Your task to perform on an android device: toggle translation in the chrome app Image 0: 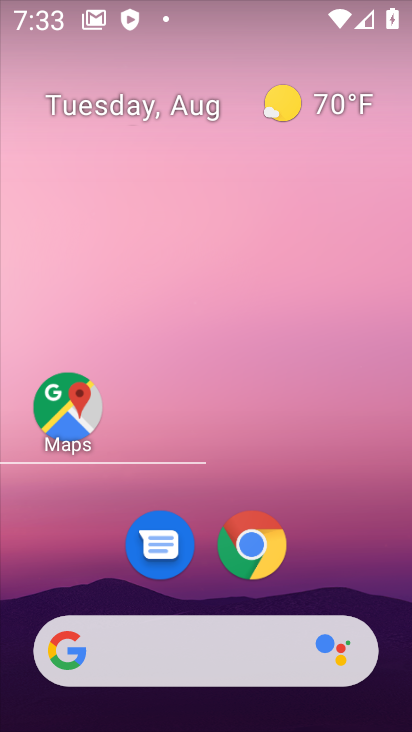
Step 0: drag from (254, 538) to (274, 142)
Your task to perform on an android device: toggle translation in the chrome app Image 1: 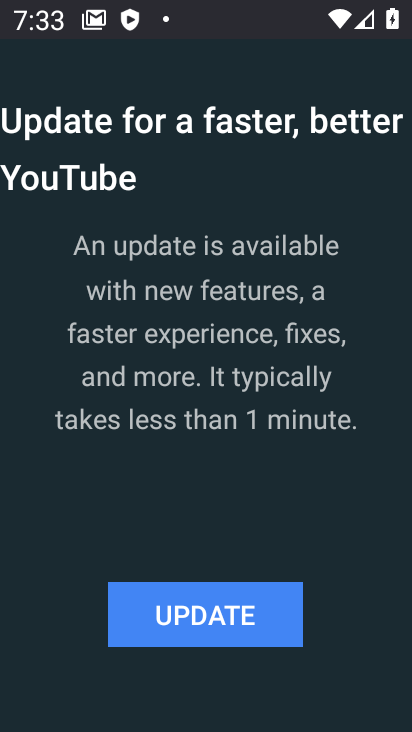
Step 1: press home button
Your task to perform on an android device: toggle translation in the chrome app Image 2: 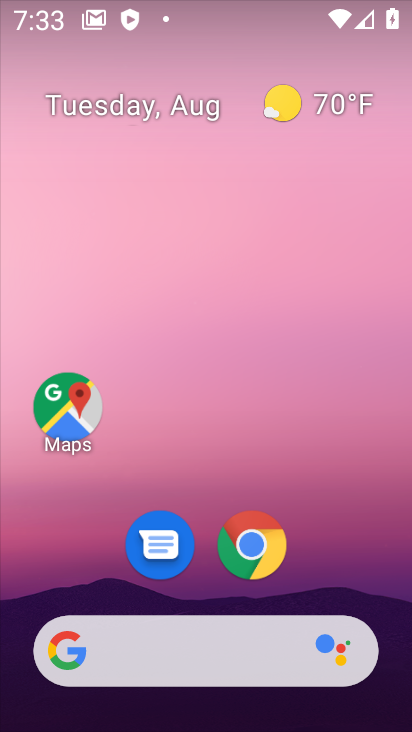
Step 2: drag from (208, 659) to (214, 146)
Your task to perform on an android device: toggle translation in the chrome app Image 3: 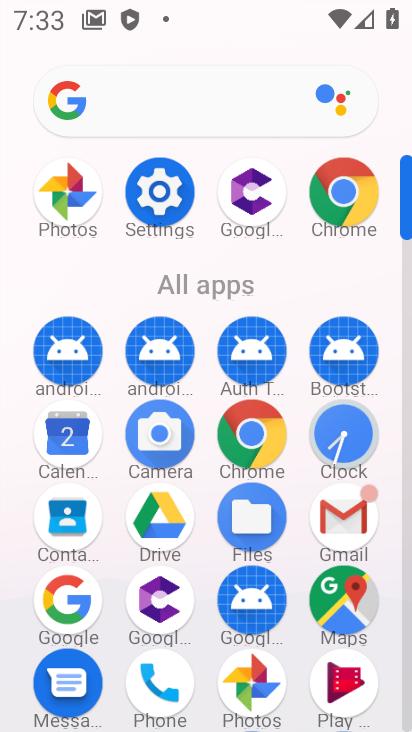
Step 3: click (347, 204)
Your task to perform on an android device: toggle translation in the chrome app Image 4: 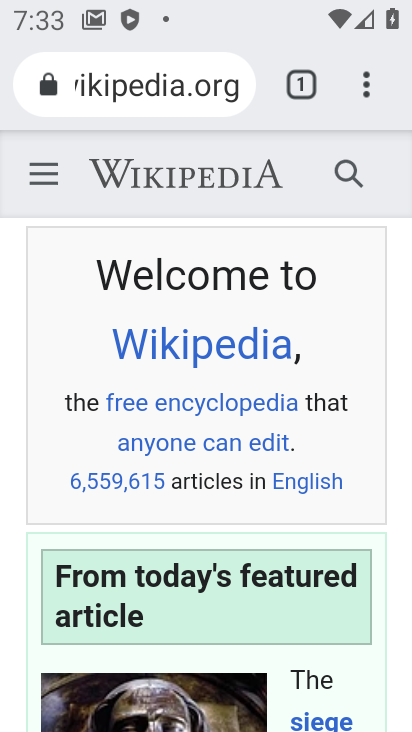
Step 4: click (366, 84)
Your task to perform on an android device: toggle translation in the chrome app Image 5: 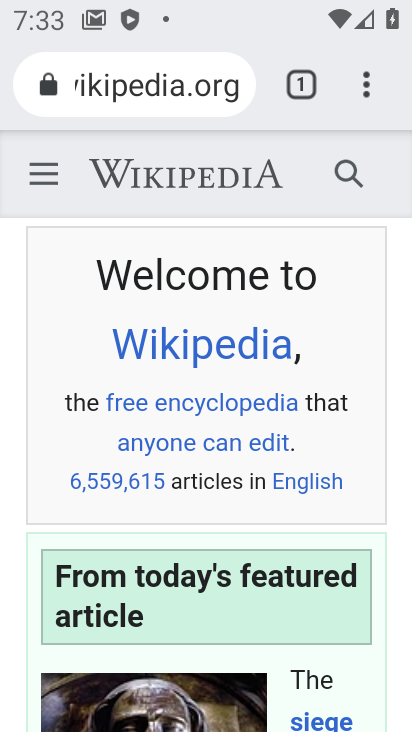
Step 5: click (366, 84)
Your task to perform on an android device: toggle translation in the chrome app Image 6: 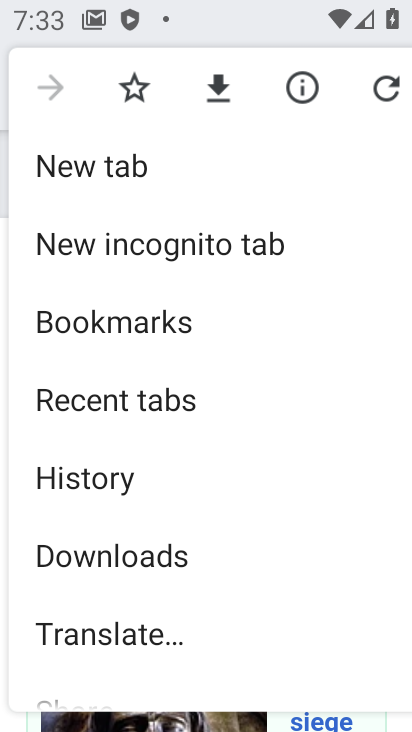
Step 6: click (132, 636)
Your task to perform on an android device: toggle translation in the chrome app Image 7: 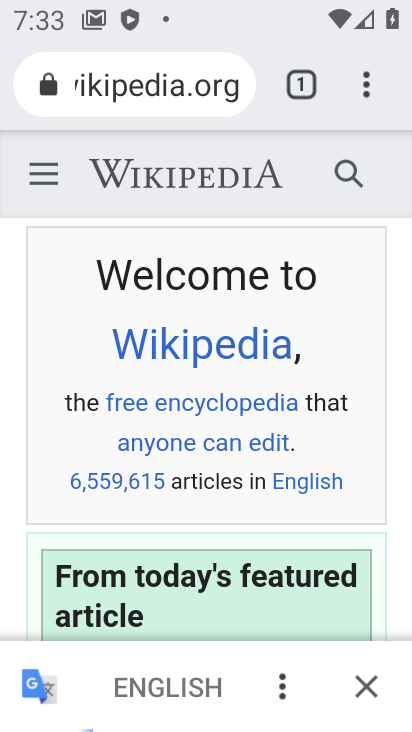
Step 7: click (283, 692)
Your task to perform on an android device: toggle translation in the chrome app Image 8: 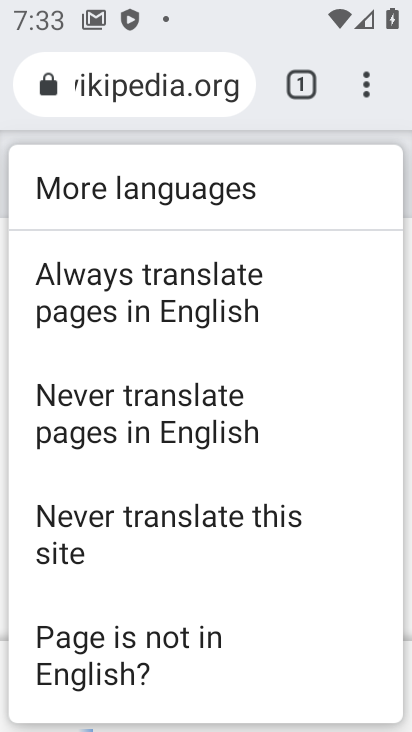
Step 8: click (203, 292)
Your task to perform on an android device: toggle translation in the chrome app Image 9: 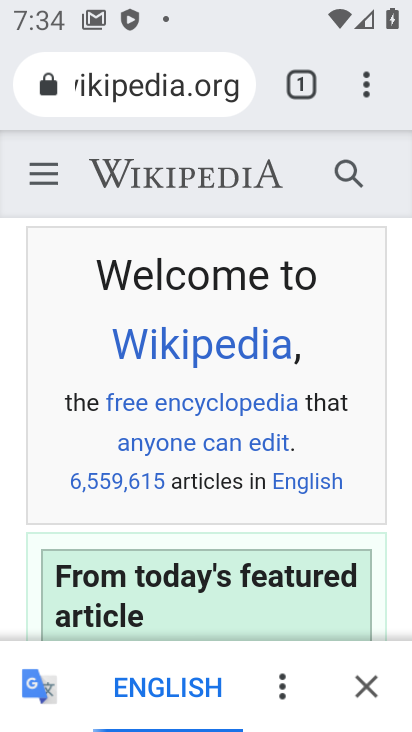
Step 9: task complete